Your task to perform on an android device: Do I have any events this weekend? Image 0: 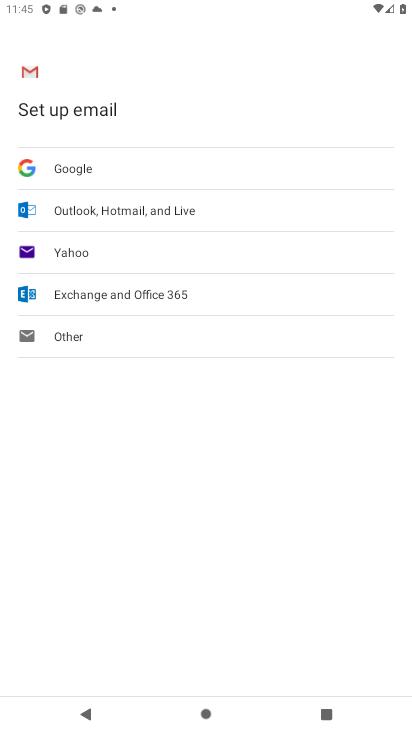
Step 0: press home button
Your task to perform on an android device: Do I have any events this weekend? Image 1: 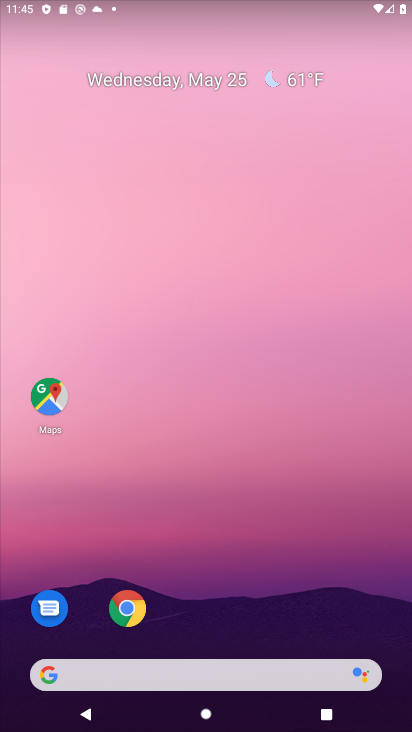
Step 1: drag from (320, 618) to (314, 183)
Your task to perform on an android device: Do I have any events this weekend? Image 2: 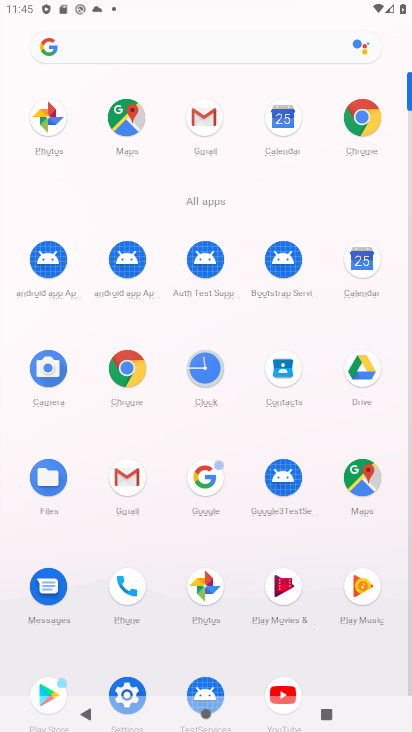
Step 2: click (358, 257)
Your task to perform on an android device: Do I have any events this weekend? Image 3: 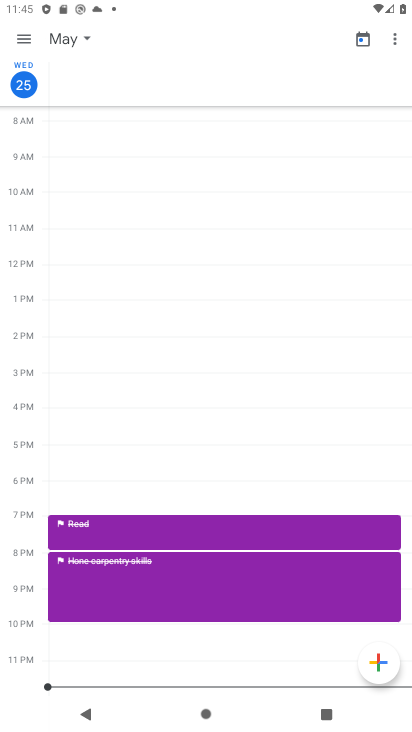
Step 3: click (17, 34)
Your task to perform on an android device: Do I have any events this weekend? Image 4: 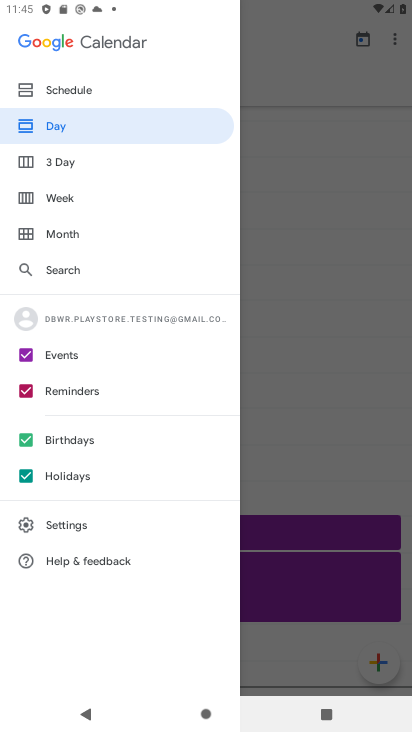
Step 4: click (64, 190)
Your task to perform on an android device: Do I have any events this weekend? Image 5: 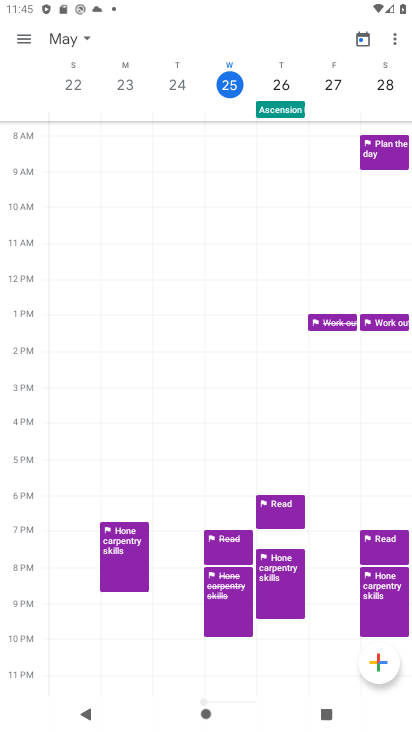
Step 5: task complete